Your task to perform on an android device: open a bookmark in the chrome app Image 0: 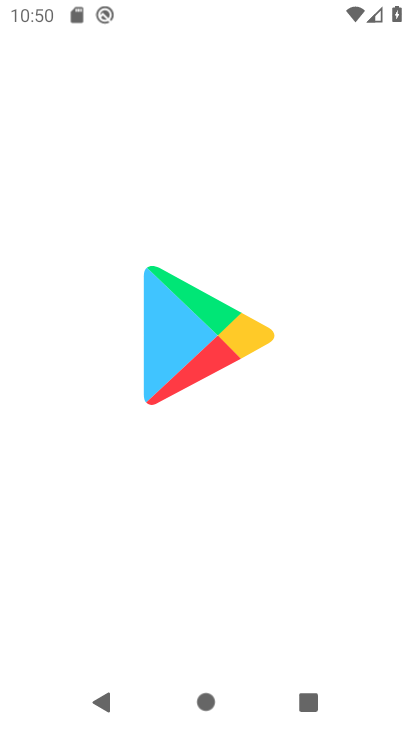
Step 0: drag from (368, 579) to (363, 149)
Your task to perform on an android device: open a bookmark in the chrome app Image 1: 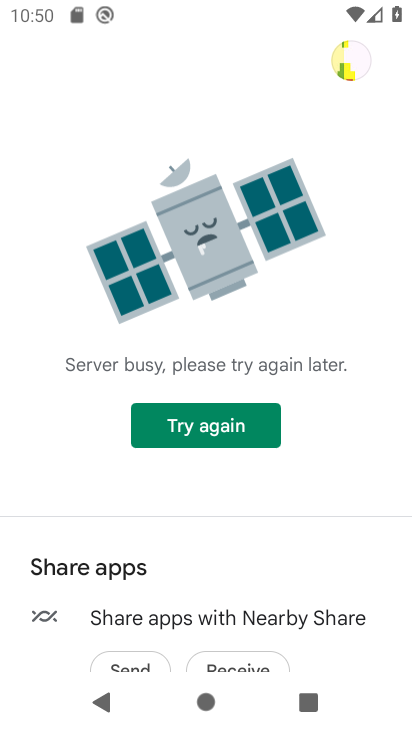
Step 1: press home button
Your task to perform on an android device: open a bookmark in the chrome app Image 2: 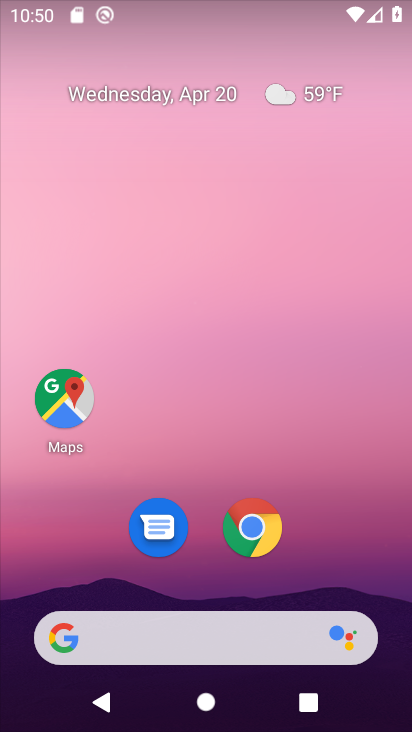
Step 2: drag from (338, 542) to (358, 104)
Your task to perform on an android device: open a bookmark in the chrome app Image 3: 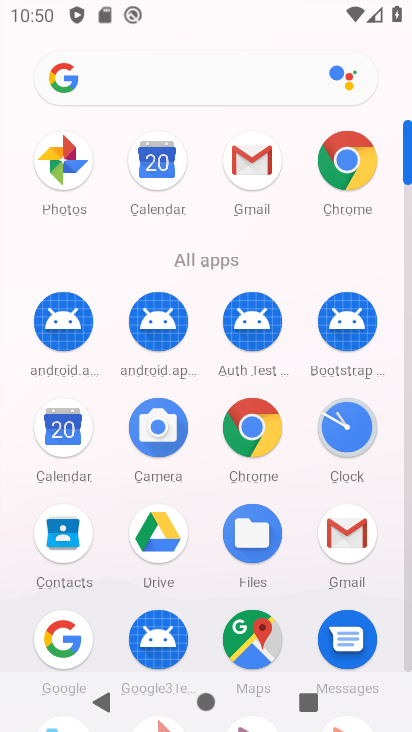
Step 3: drag from (379, 497) to (376, 259)
Your task to perform on an android device: open a bookmark in the chrome app Image 4: 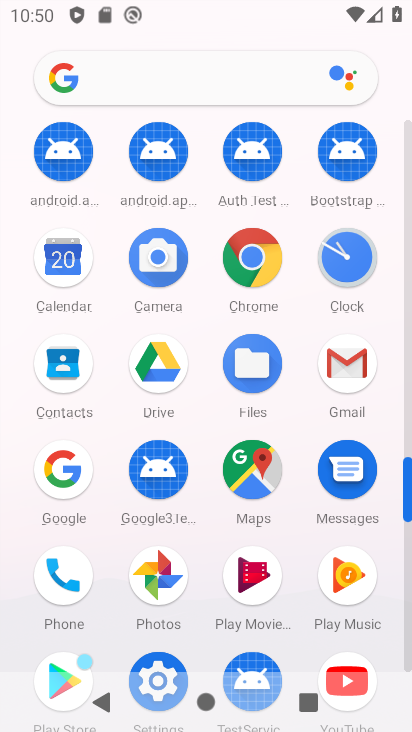
Step 4: click (245, 257)
Your task to perform on an android device: open a bookmark in the chrome app Image 5: 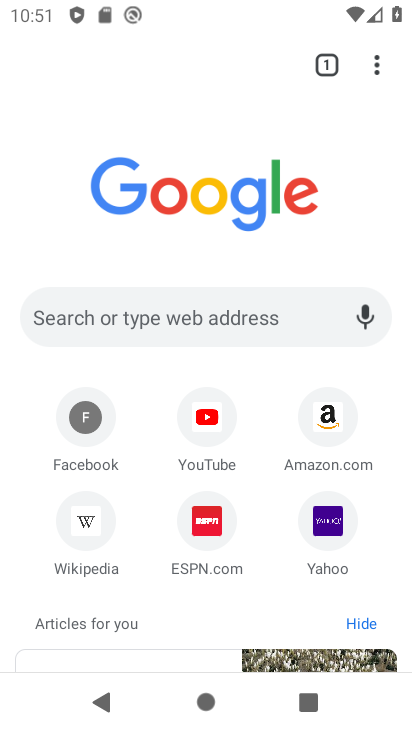
Step 5: task complete